Your task to perform on an android device: Open network settings Image 0: 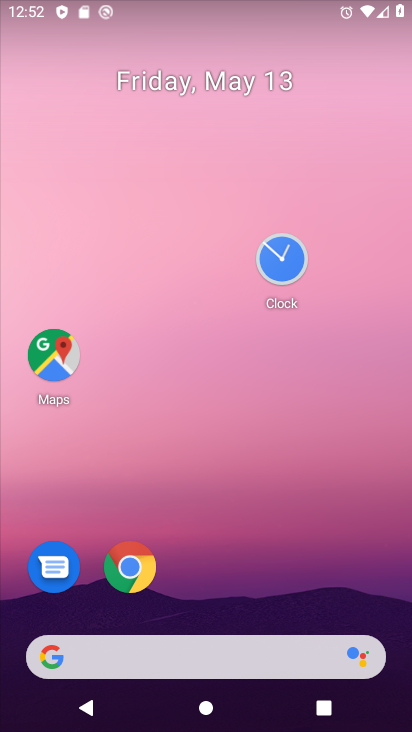
Step 0: drag from (291, 592) to (283, 60)
Your task to perform on an android device: Open network settings Image 1: 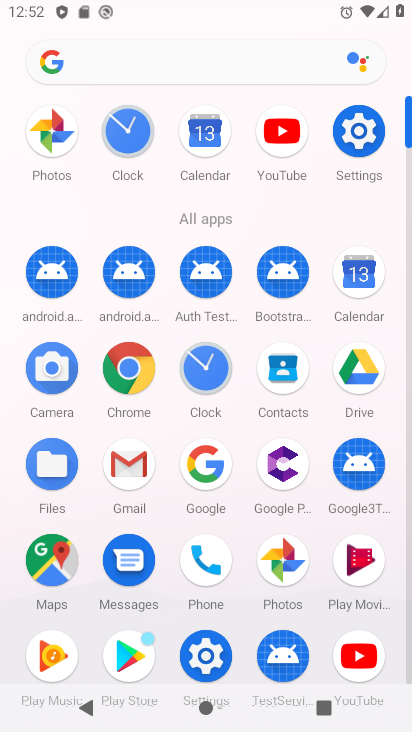
Step 1: click (360, 185)
Your task to perform on an android device: Open network settings Image 2: 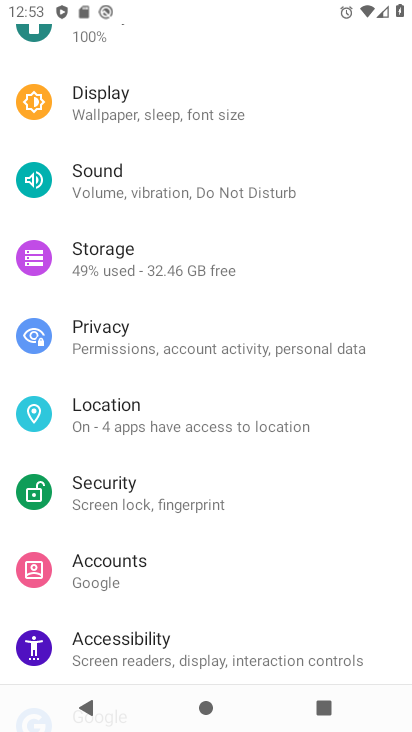
Step 2: drag from (208, 159) to (273, 445)
Your task to perform on an android device: Open network settings Image 3: 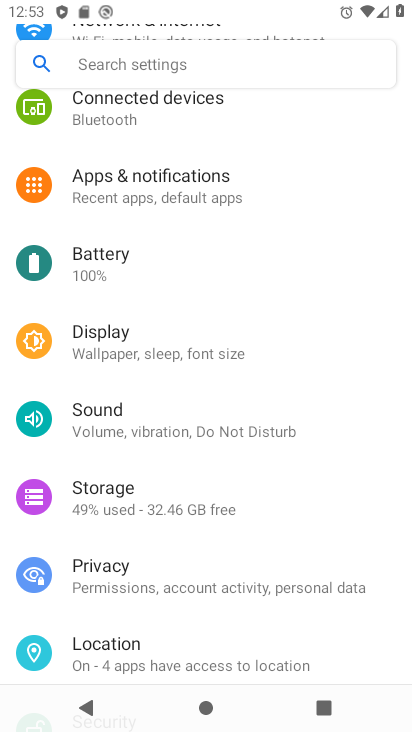
Step 3: drag from (214, 171) to (266, 674)
Your task to perform on an android device: Open network settings Image 4: 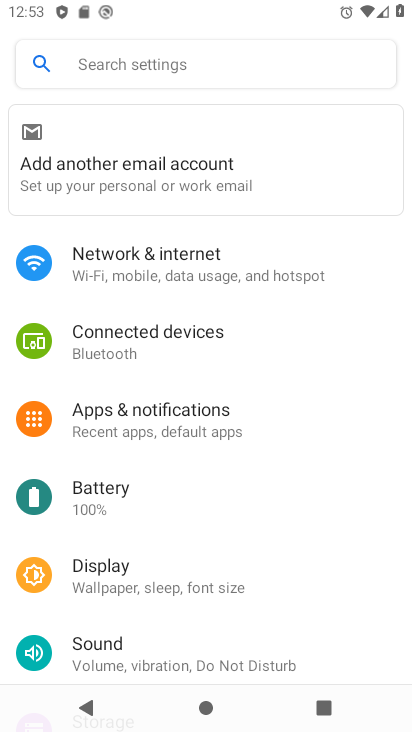
Step 4: click (238, 287)
Your task to perform on an android device: Open network settings Image 5: 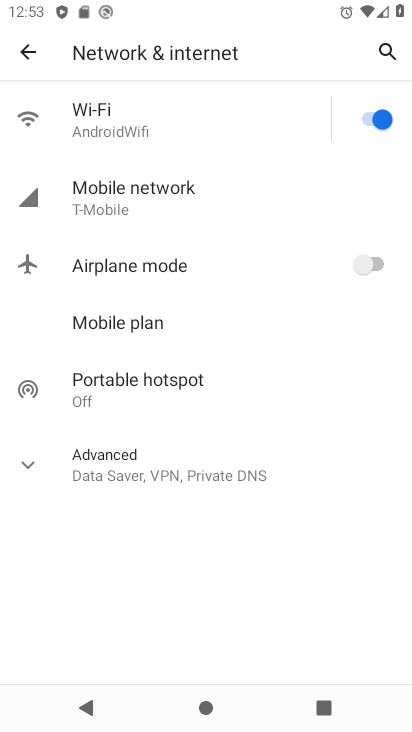
Step 5: task complete